Your task to perform on an android device: make emails show in primary in the gmail app Image 0: 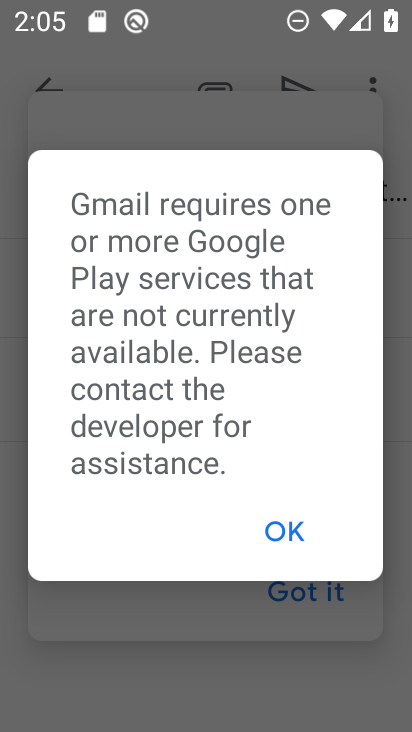
Step 0: click (286, 526)
Your task to perform on an android device: make emails show in primary in the gmail app Image 1: 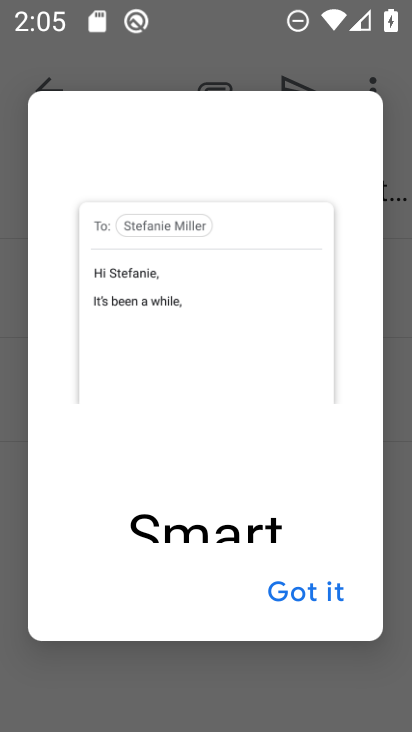
Step 1: press home button
Your task to perform on an android device: make emails show in primary in the gmail app Image 2: 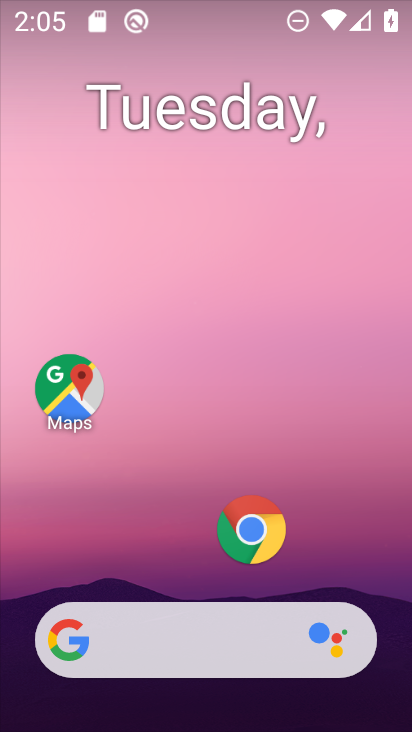
Step 2: drag from (301, 702) to (340, 111)
Your task to perform on an android device: make emails show in primary in the gmail app Image 3: 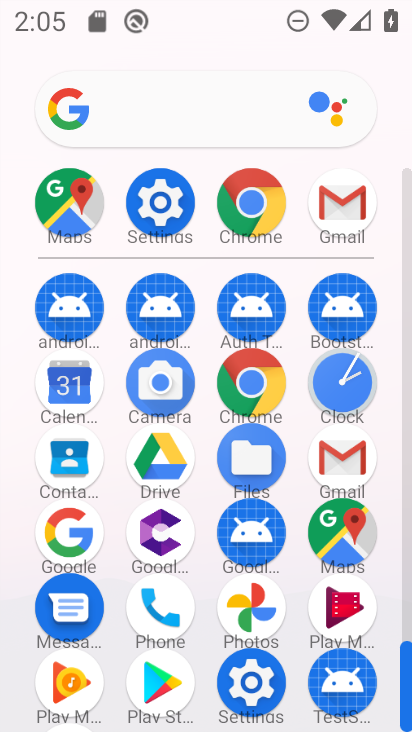
Step 3: click (335, 204)
Your task to perform on an android device: make emails show in primary in the gmail app Image 4: 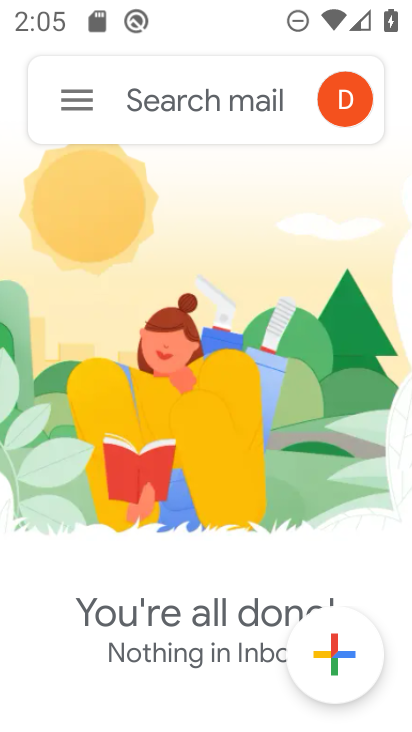
Step 4: click (87, 96)
Your task to perform on an android device: make emails show in primary in the gmail app Image 5: 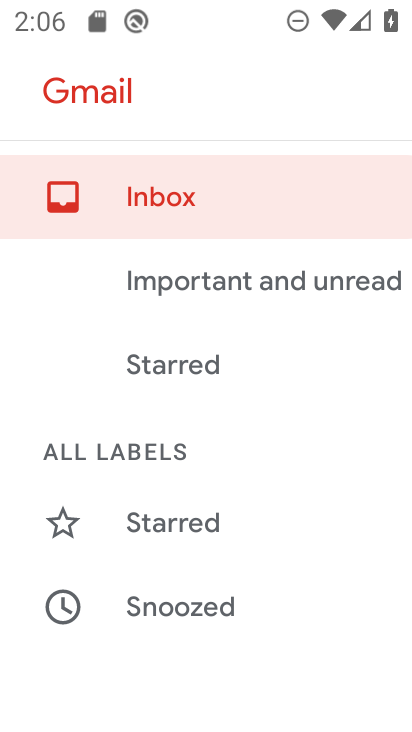
Step 5: drag from (145, 499) to (226, 117)
Your task to perform on an android device: make emails show in primary in the gmail app Image 6: 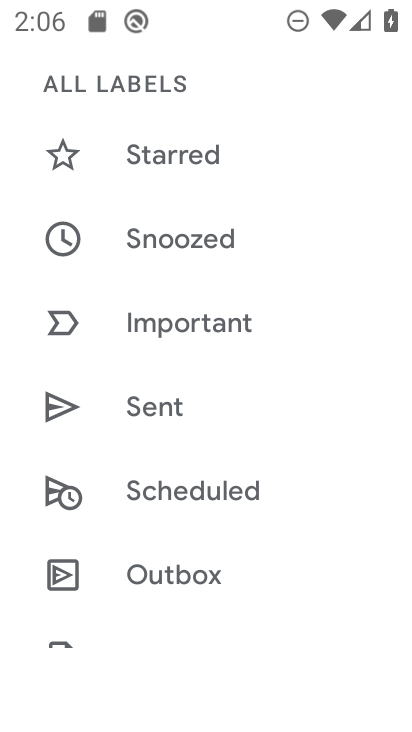
Step 6: drag from (109, 460) to (179, 151)
Your task to perform on an android device: make emails show in primary in the gmail app Image 7: 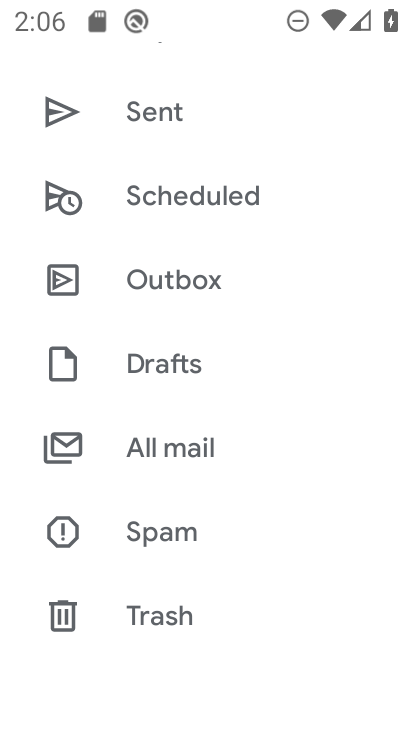
Step 7: drag from (158, 459) to (177, 179)
Your task to perform on an android device: make emails show in primary in the gmail app Image 8: 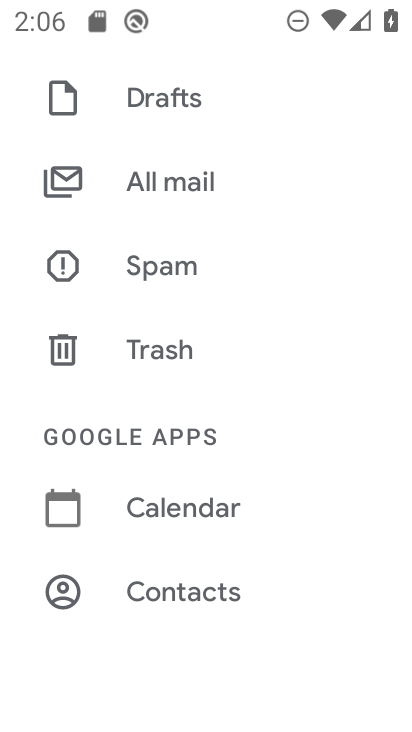
Step 8: drag from (149, 367) to (153, 204)
Your task to perform on an android device: make emails show in primary in the gmail app Image 9: 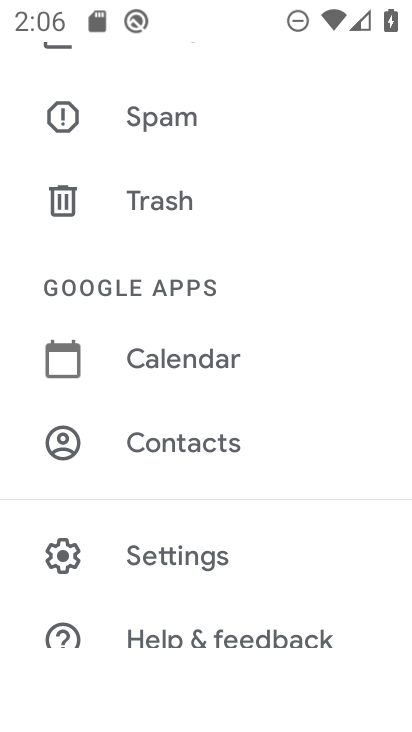
Step 9: click (142, 552)
Your task to perform on an android device: make emails show in primary in the gmail app Image 10: 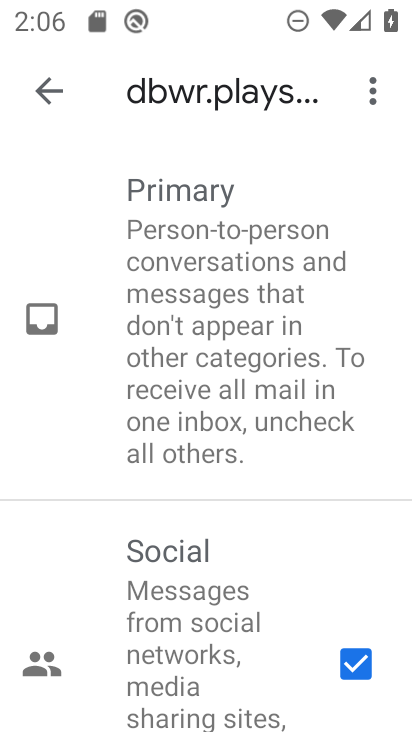
Step 10: click (195, 335)
Your task to perform on an android device: make emails show in primary in the gmail app Image 11: 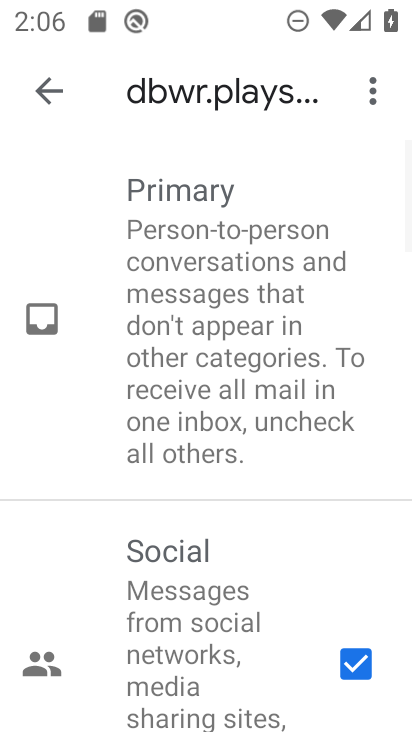
Step 11: task complete